Your task to perform on an android device: open chrome privacy settings Image 0: 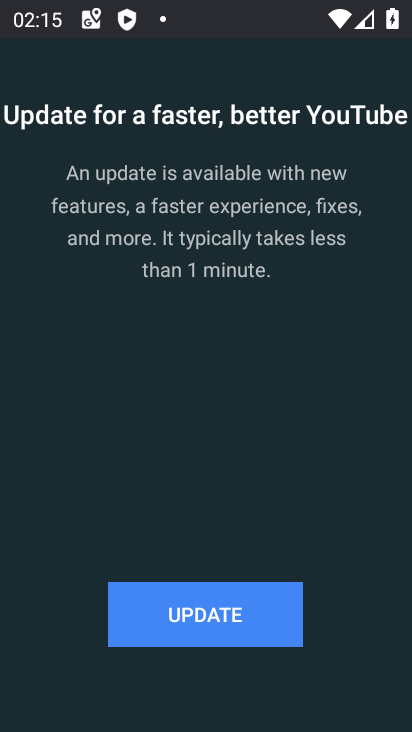
Step 0: press home button
Your task to perform on an android device: open chrome privacy settings Image 1: 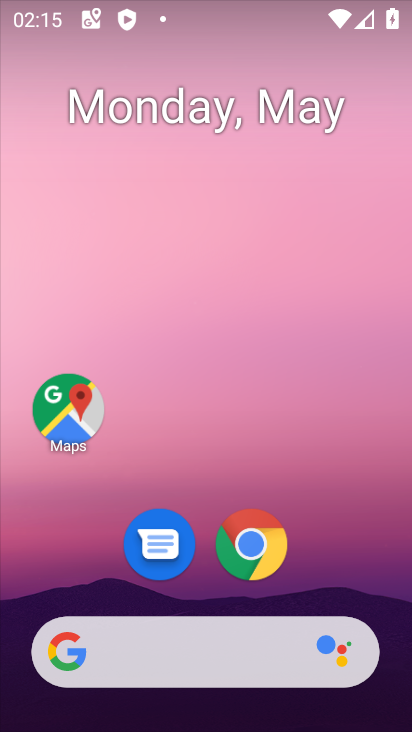
Step 1: drag from (374, 588) to (366, 302)
Your task to perform on an android device: open chrome privacy settings Image 2: 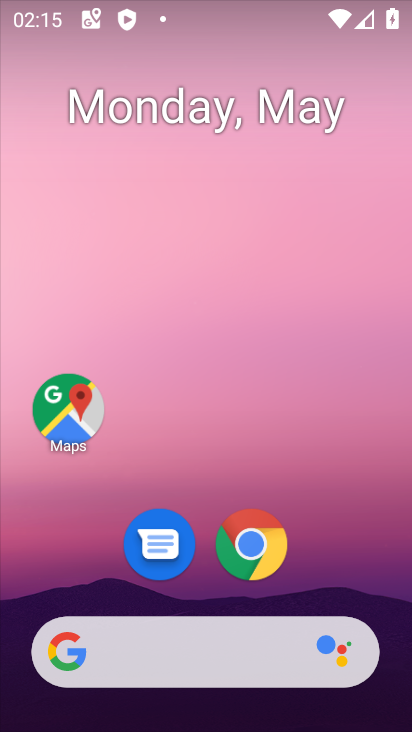
Step 2: drag from (357, 574) to (382, 237)
Your task to perform on an android device: open chrome privacy settings Image 3: 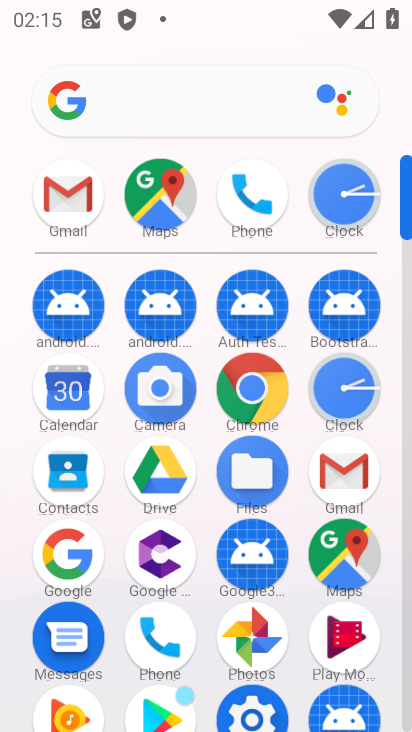
Step 3: click (266, 699)
Your task to perform on an android device: open chrome privacy settings Image 4: 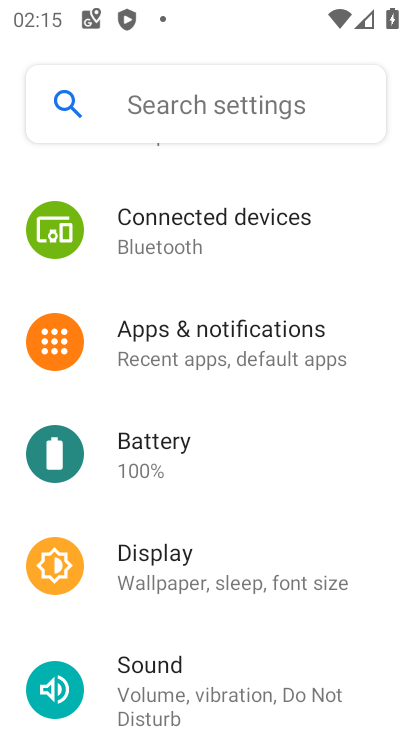
Step 4: drag from (338, 472) to (344, 395)
Your task to perform on an android device: open chrome privacy settings Image 5: 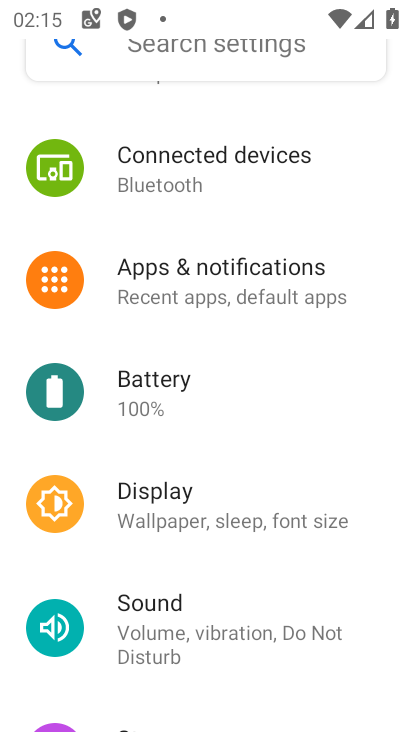
Step 5: drag from (364, 520) to (357, 432)
Your task to perform on an android device: open chrome privacy settings Image 6: 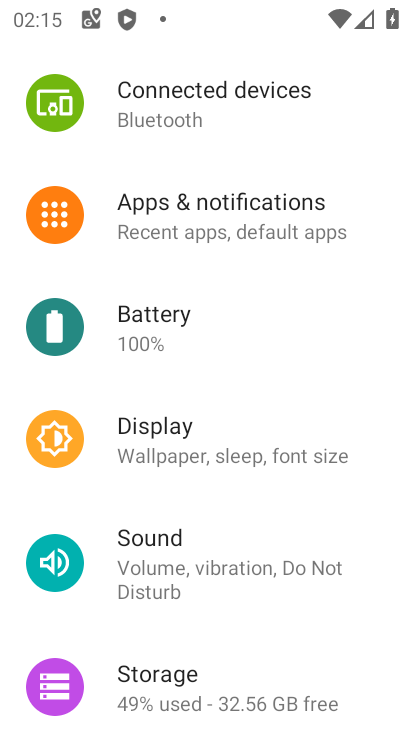
Step 6: drag from (347, 520) to (343, 423)
Your task to perform on an android device: open chrome privacy settings Image 7: 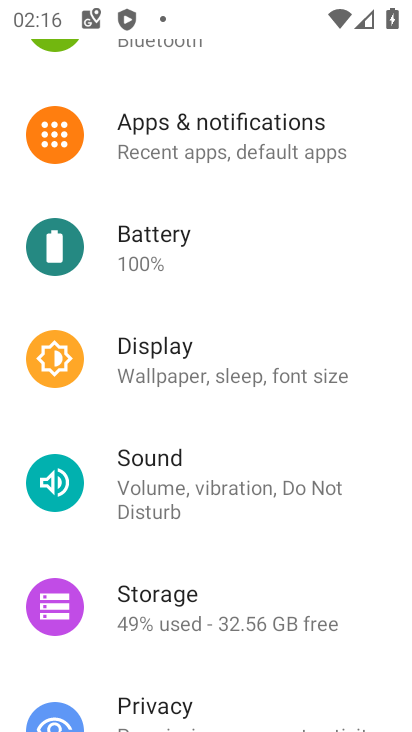
Step 7: drag from (360, 561) to (347, 451)
Your task to perform on an android device: open chrome privacy settings Image 8: 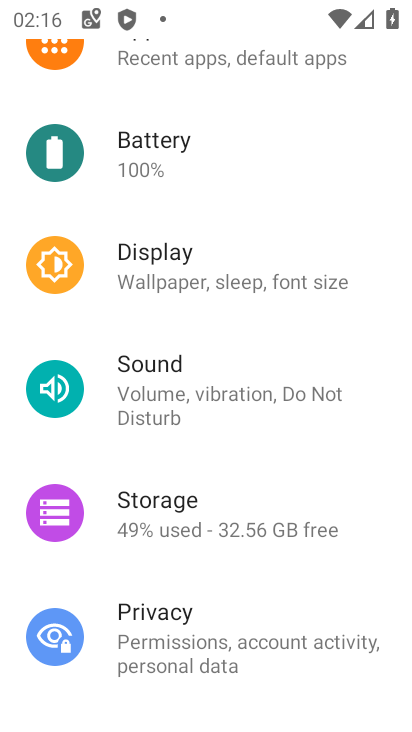
Step 8: drag from (354, 587) to (362, 482)
Your task to perform on an android device: open chrome privacy settings Image 9: 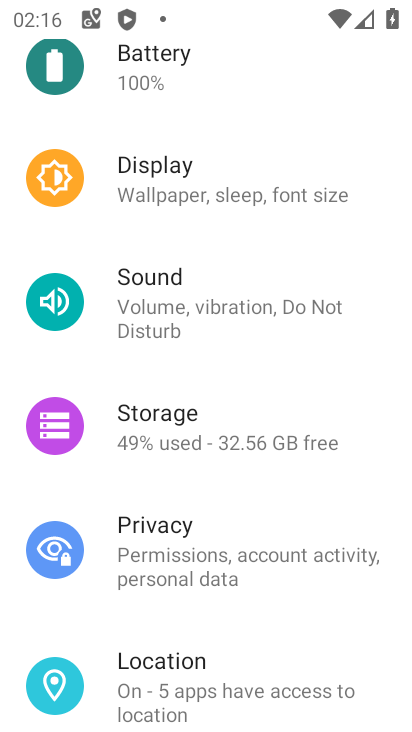
Step 9: drag from (359, 546) to (361, 414)
Your task to perform on an android device: open chrome privacy settings Image 10: 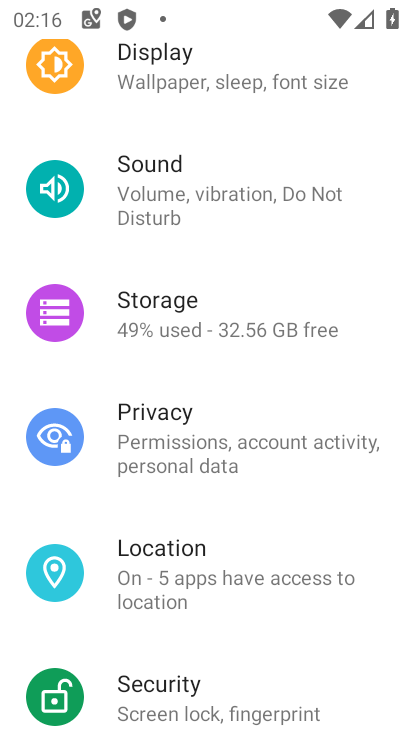
Step 10: click (274, 498)
Your task to perform on an android device: open chrome privacy settings Image 11: 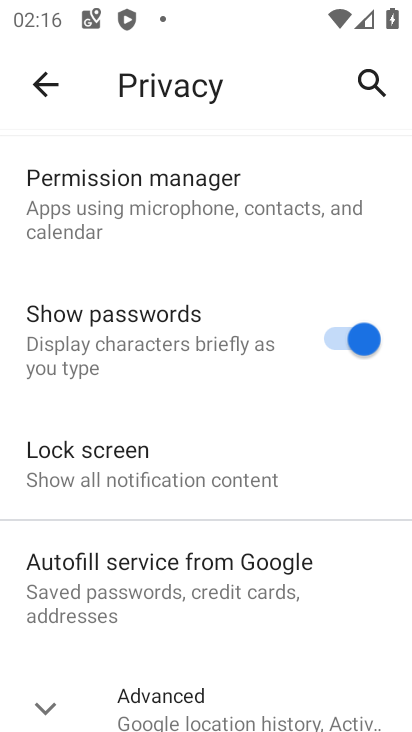
Step 11: task complete